Your task to perform on an android device: empty trash in google photos Image 0: 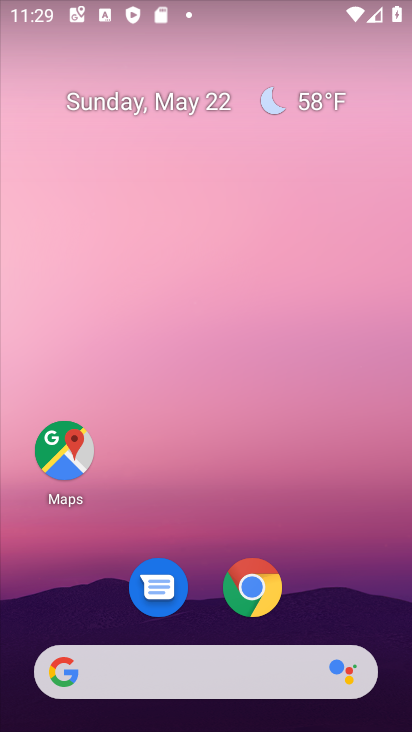
Step 0: drag from (177, 500) to (214, 0)
Your task to perform on an android device: empty trash in google photos Image 1: 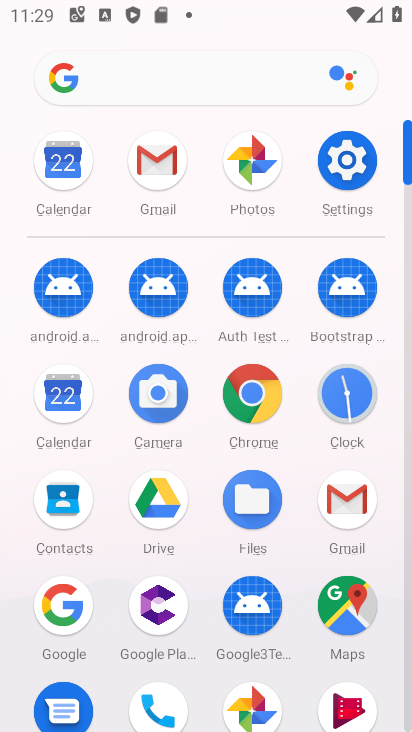
Step 1: click (246, 141)
Your task to perform on an android device: empty trash in google photos Image 2: 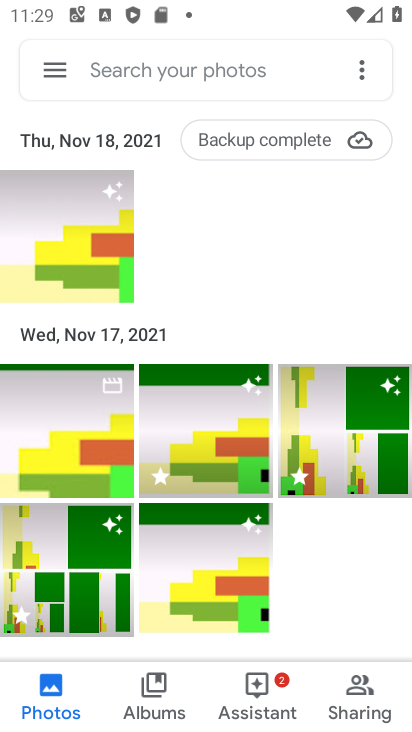
Step 2: click (58, 71)
Your task to perform on an android device: empty trash in google photos Image 3: 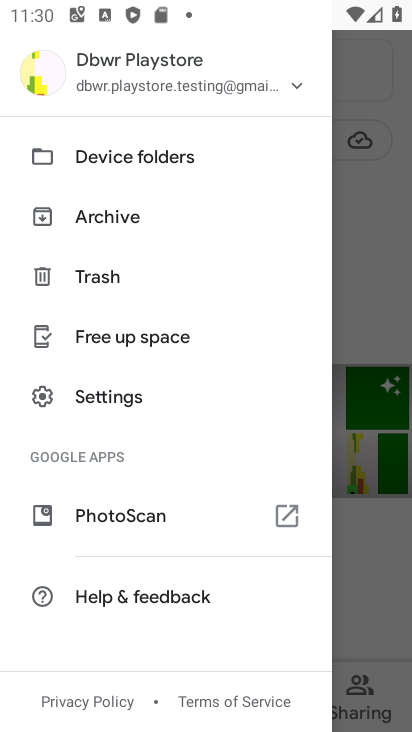
Step 3: click (97, 268)
Your task to perform on an android device: empty trash in google photos Image 4: 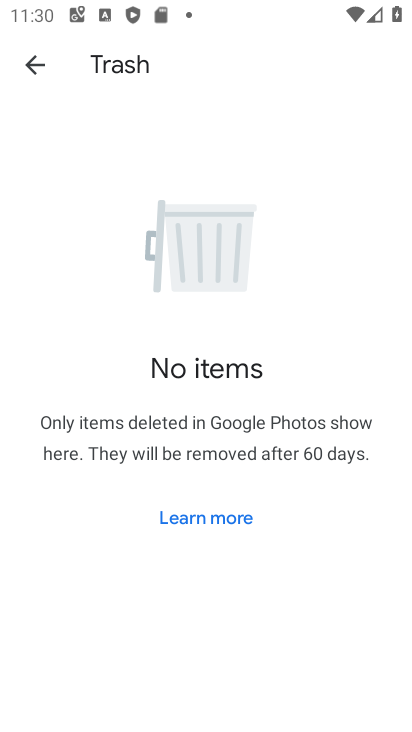
Step 4: task complete